Your task to perform on an android device: Open the Play Movies app and select the watchlist tab. Image 0: 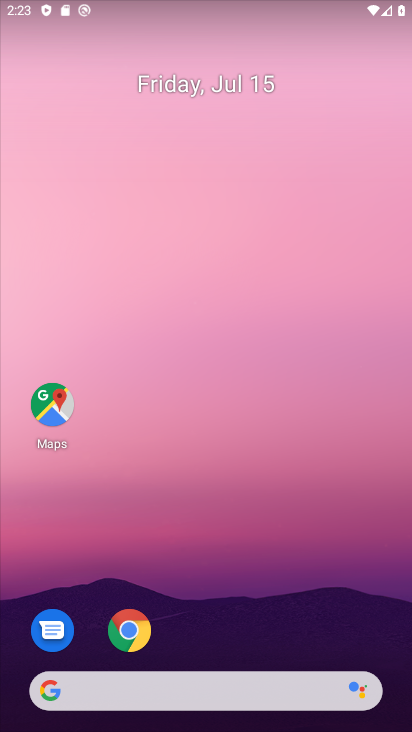
Step 0: drag from (233, 622) to (254, 1)
Your task to perform on an android device: Open the Play Movies app and select the watchlist tab. Image 1: 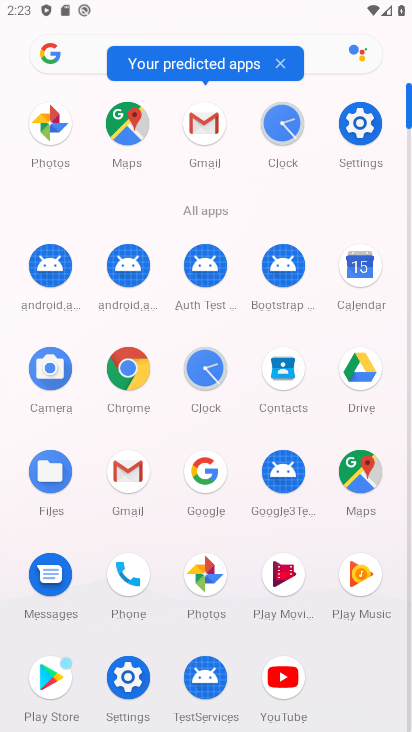
Step 1: click (296, 574)
Your task to perform on an android device: Open the Play Movies app and select the watchlist tab. Image 2: 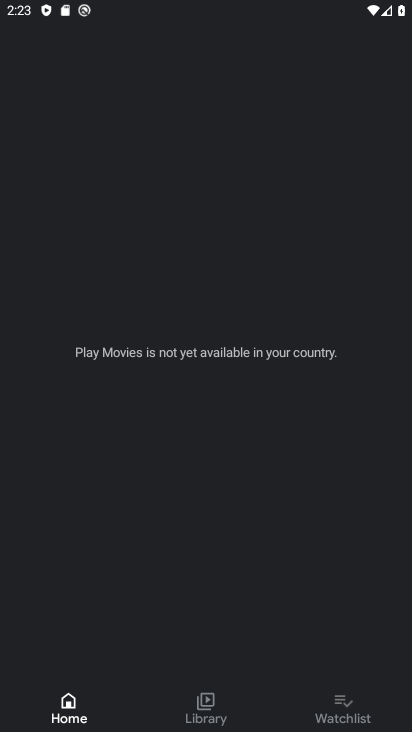
Step 2: click (343, 699)
Your task to perform on an android device: Open the Play Movies app and select the watchlist tab. Image 3: 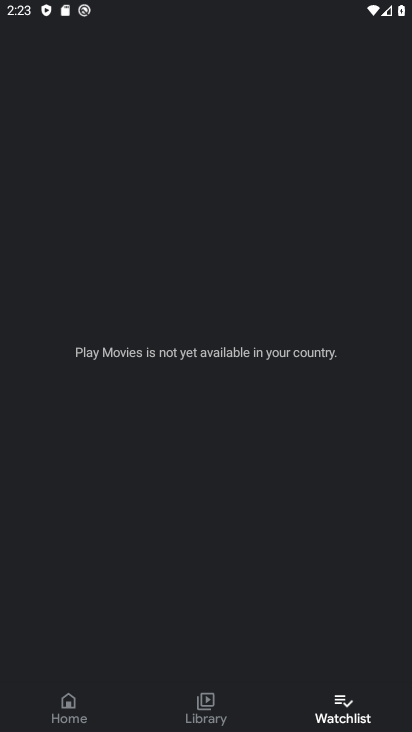
Step 3: task complete